Your task to perform on an android device: turn on the 24-hour format for clock Image 0: 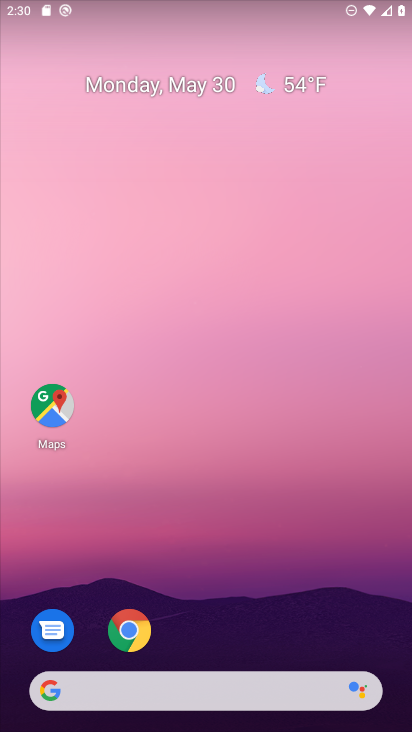
Step 0: press home button
Your task to perform on an android device: turn on the 24-hour format for clock Image 1: 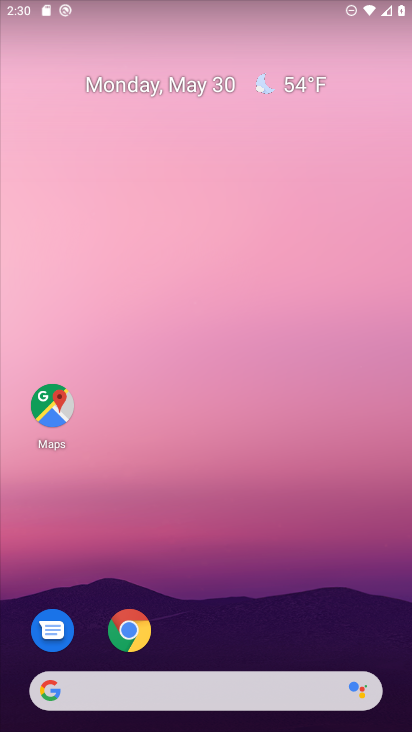
Step 1: drag from (124, 699) to (323, 62)
Your task to perform on an android device: turn on the 24-hour format for clock Image 2: 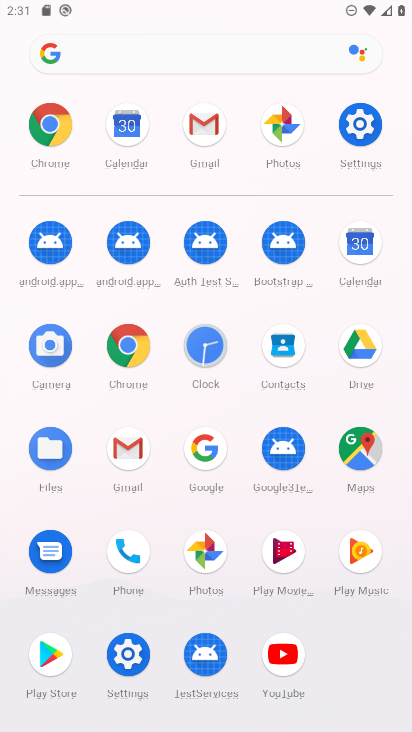
Step 2: click (202, 351)
Your task to perform on an android device: turn on the 24-hour format for clock Image 3: 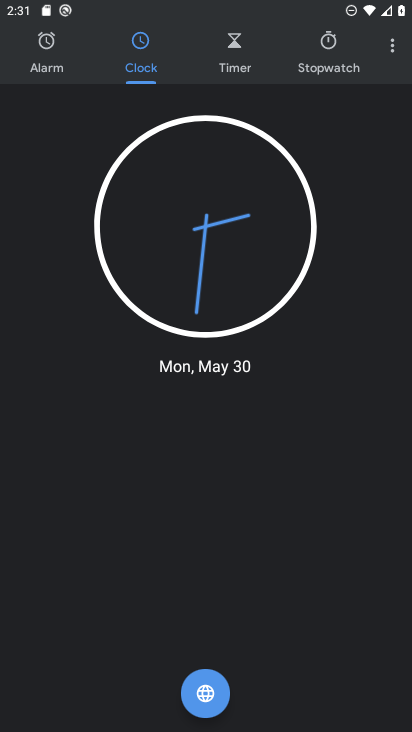
Step 3: click (389, 43)
Your task to perform on an android device: turn on the 24-hour format for clock Image 4: 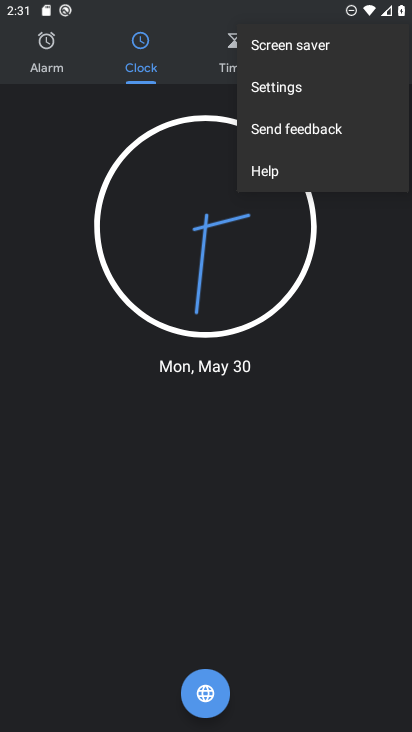
Step 4: click (279, 87)
Your task to perform on an android device: turn on the 24-hour format for clock Image 5: 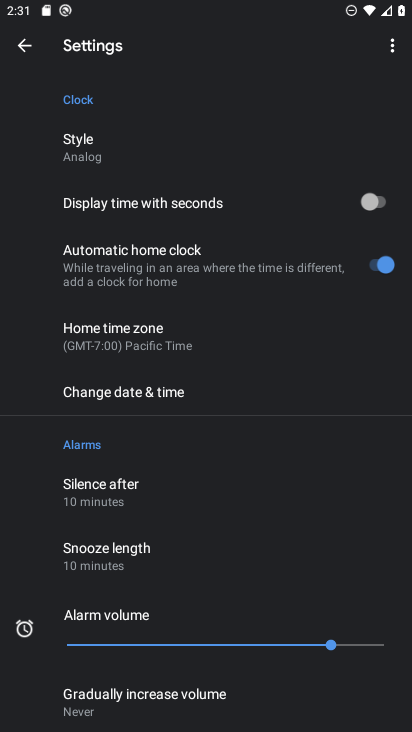
Step 5: click (171, 390)
Your task to perform on an android device: turn on the 24-hour format for clock Image 6: 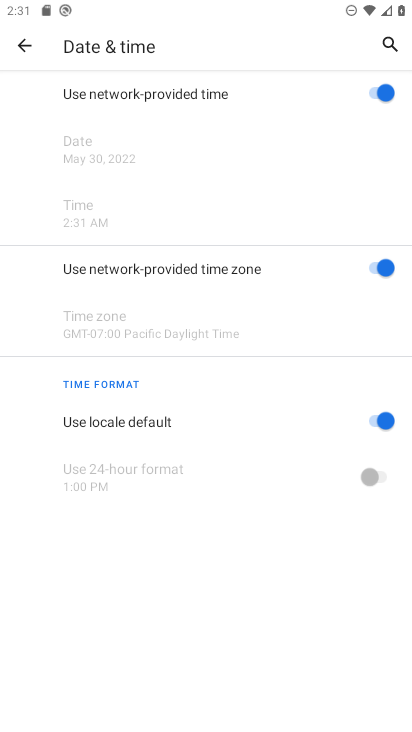
Step 6: click (375, 419)
Your task to perform on an android device: turn on the 24-hour format for clock Image 7: 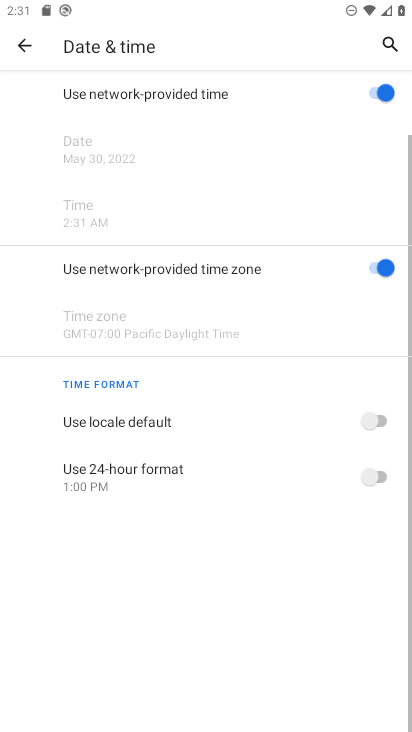
Step 7: click (383, 482)
Your task to perform on an android device: turn on the 24-hour format for clock Image 8: 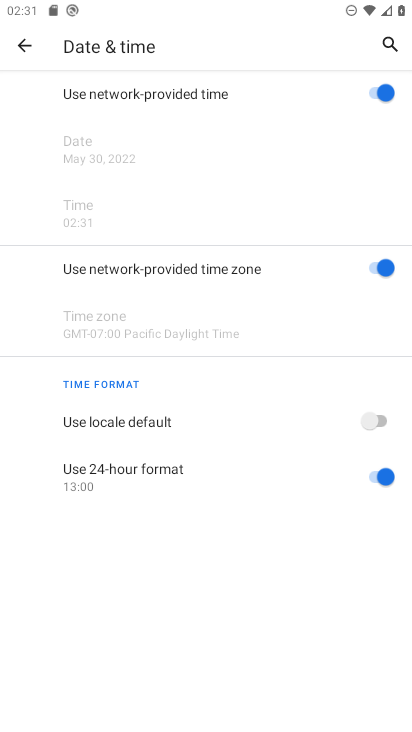
Step 8: task complete